Your task to perform on an android device: Open Youtube and go to the subscriptions tab Image 0: 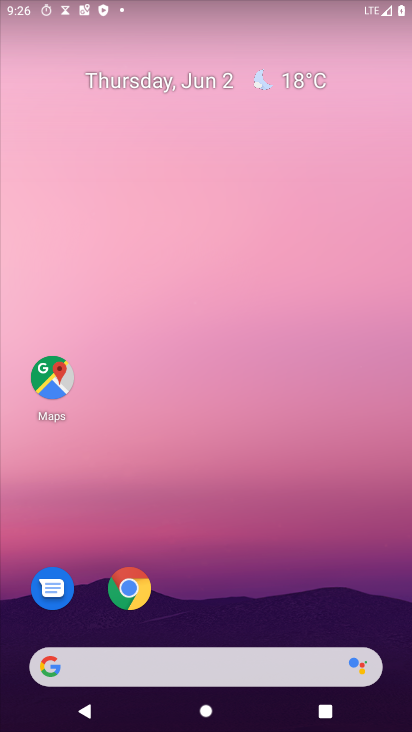
Step 0: drag from (216, 590) to (235, 48)
Your task to perform on an android device: Open Youtube and go to the subscriptions tab Image 1: 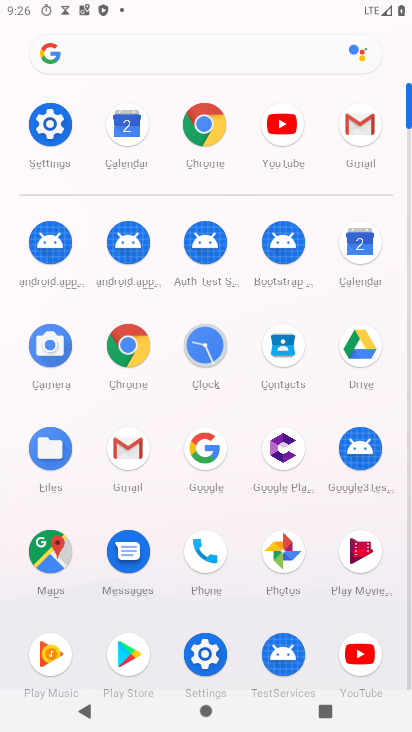
Step 1: click (283, 130)
Your task to perform on an android device: Open Youtube and go to the subscriptions tab Image 2: 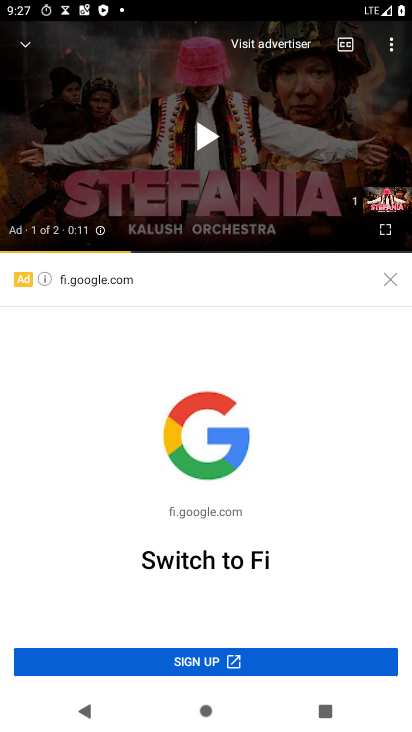
Step 2: press home button
Your task to perform on an android device: Open Youtube and go to the subscriptions tab Image 3: 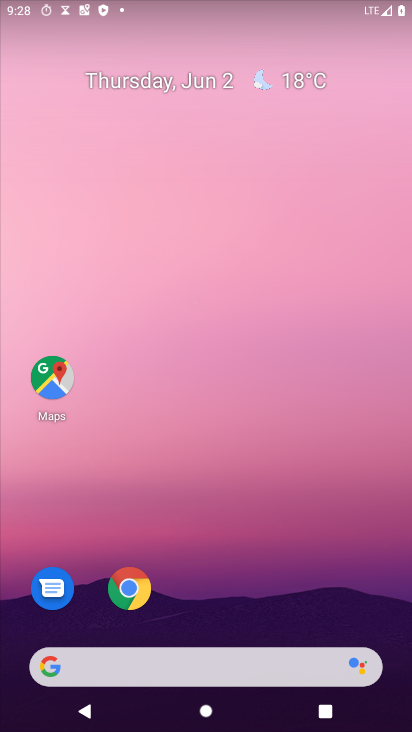
Step 3: drag from (246, 559) to (327, 203)
Your task to perform on an android device: Open Youtube and go to the subscriptions tab Image 4: 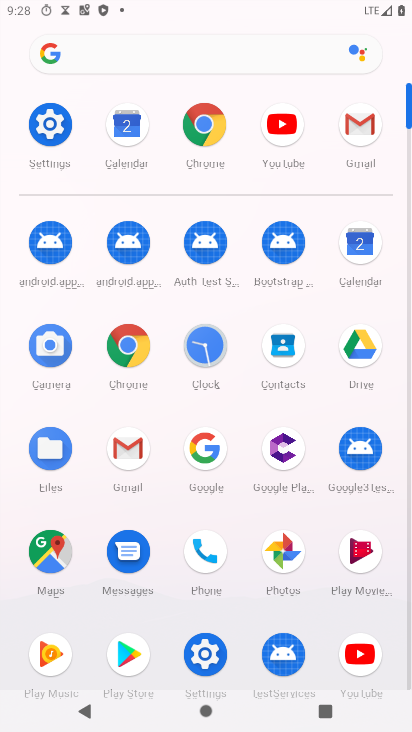
Step 4: click (280, 113)
Your task to perform on an android device: Open Youtube and go to the subscriptions tab Image 5: 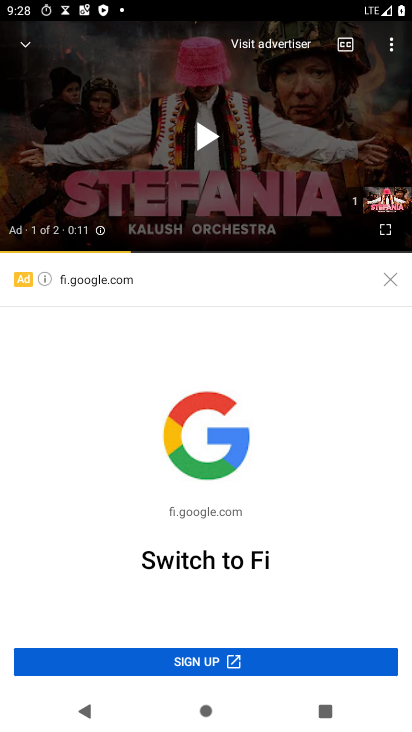
Step 5: click (30, 44)
Your task to perform on an android device: Open Youtube and go to the subscriptions tab Image 6: 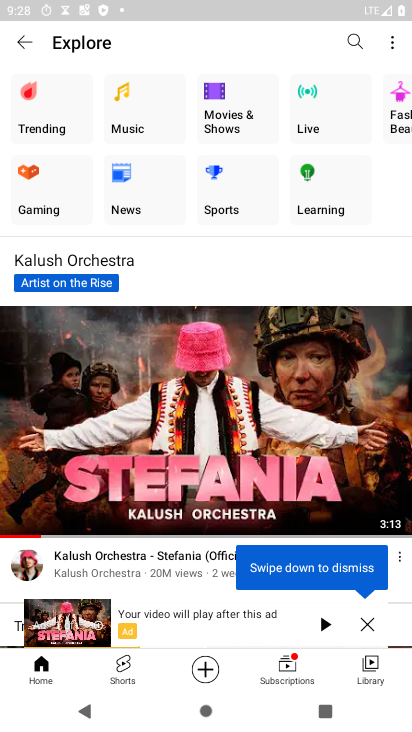
Step 6: click (303, 669)
Your task to perform on an android device: Open Youtube and go to the subscriptions tab Image 7: 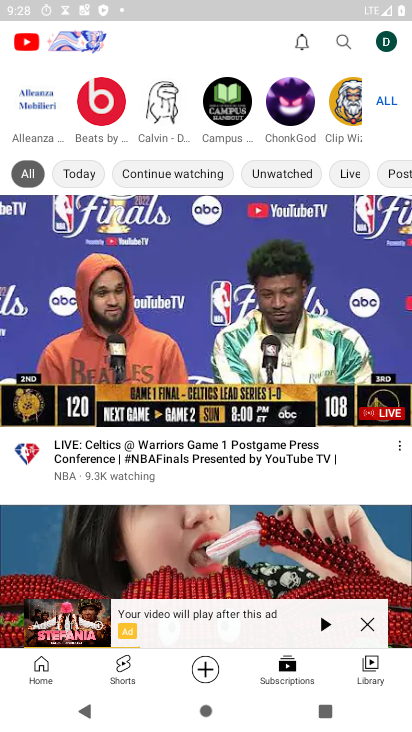
Step 7: task complete